Your task to perform on an android device: Open Google Chrome and open the bookmarks view Image 0: 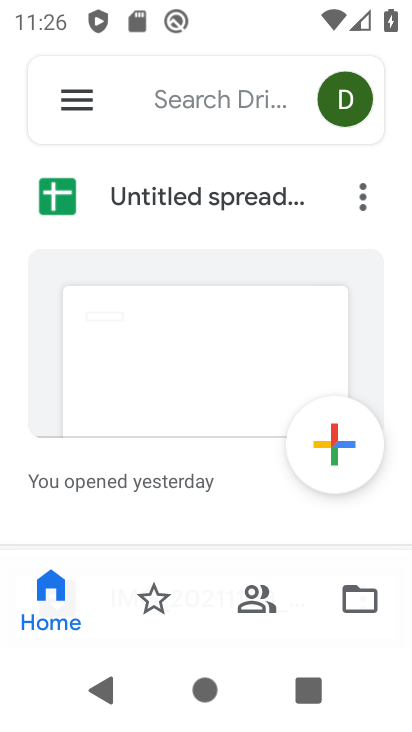
Step 0: press home button
Your task to perform on an android device: Open Google Chrome and open the bookmarks view Image 1: 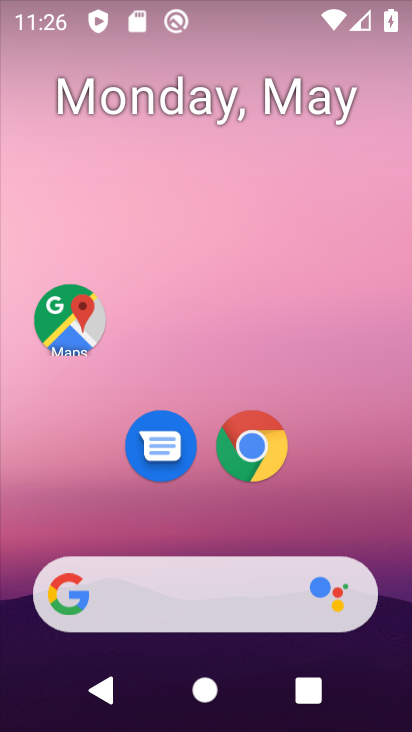
Step 1: click (254, 451)
Your task to perform on an android device: Open Google Chrome and open the bookmarks view Image 2: 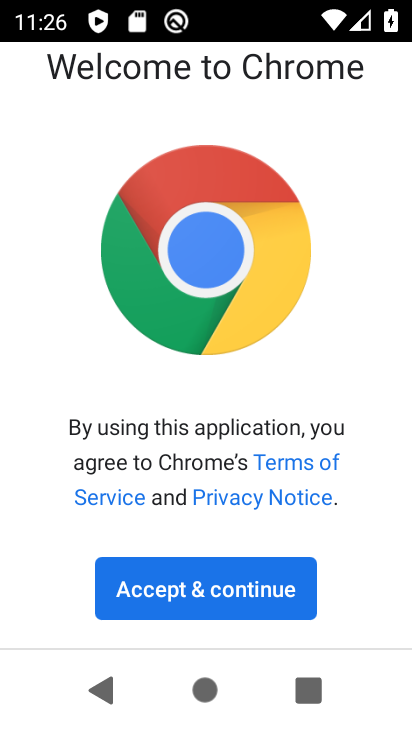
Step 2: click (226, 592)
Your task to perform on an android device: Open Google Chrome and open the bookmarks view Image 3: 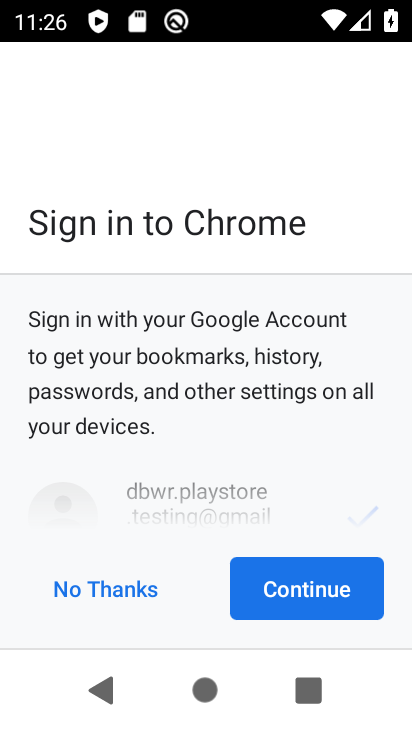
Step 3: click (278, 586)
Your task to perform on an android device: Open Google Chrome and open the bookmarks view Image 4: 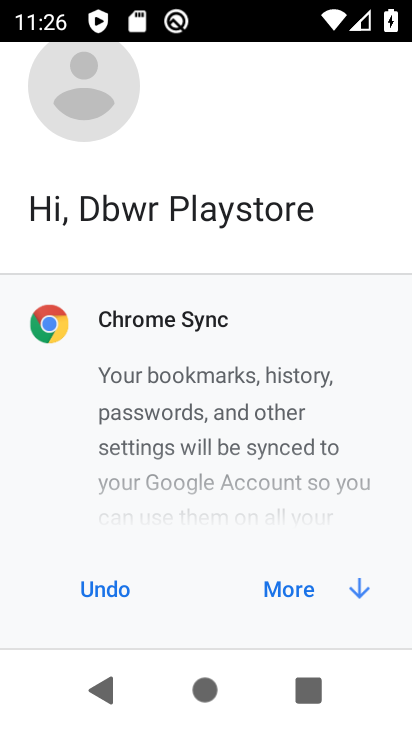
Step 4: click (278, 586)
Your task to perform on an android device: Open Google Chrome and open the bookmarks view Image 5: 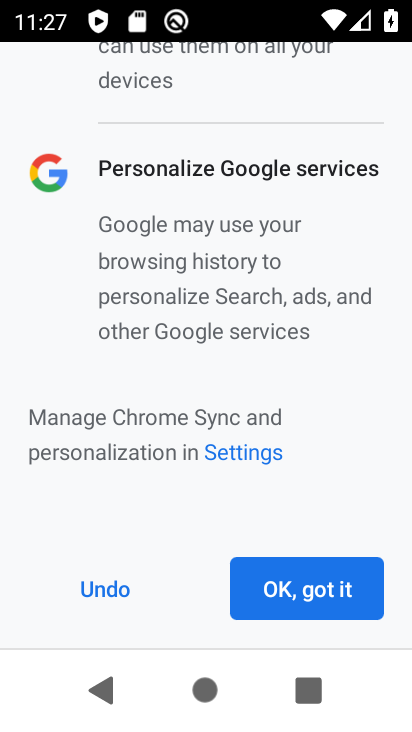
Step 5: click (278, 586)
Your task to perform on an android device: Open Google Chrome and open the bookmarks view Image 6: 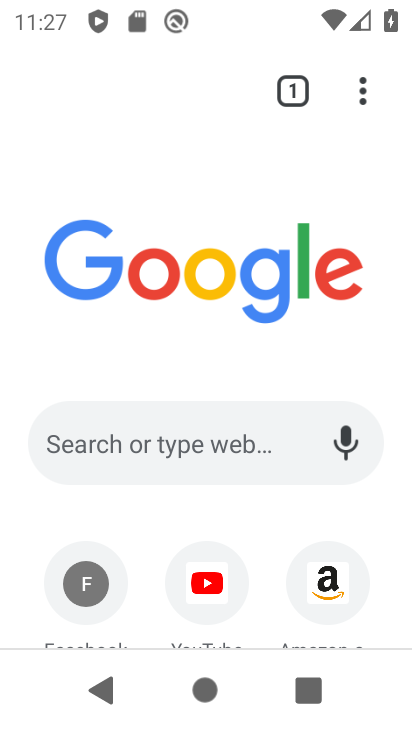
Step 6: click (366, 88)
Your task to perform on an android device: Open Google Chrome and open the bookmarks view Image 7: 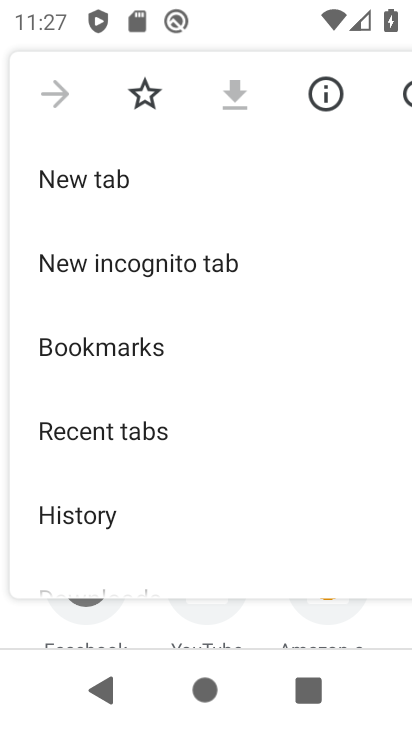
Step 7: click (139, 350)
Your task to perform on an android device: Open Google Chrome and open the bookmarks view Image 8: 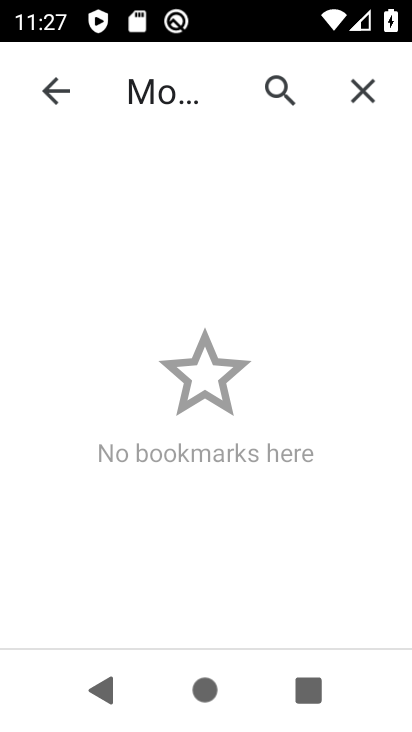
Step 8: task complete